Your task to perform on an android device: What's on my calendar tomorrow? Image 0: 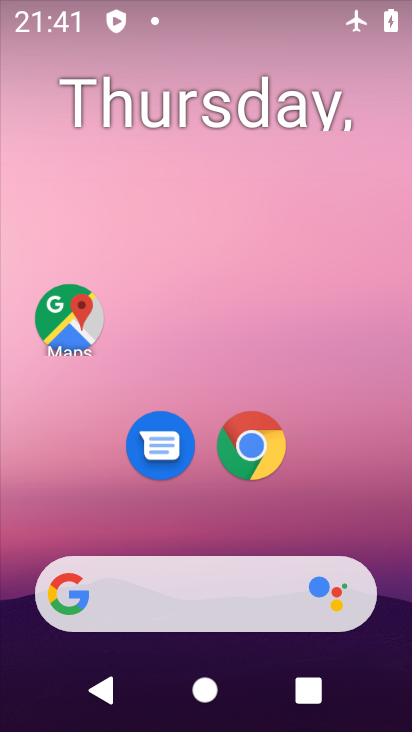
Step 0: press home button
Your task to perform on an android device: What's on my calendar tomorrow? Image 1: 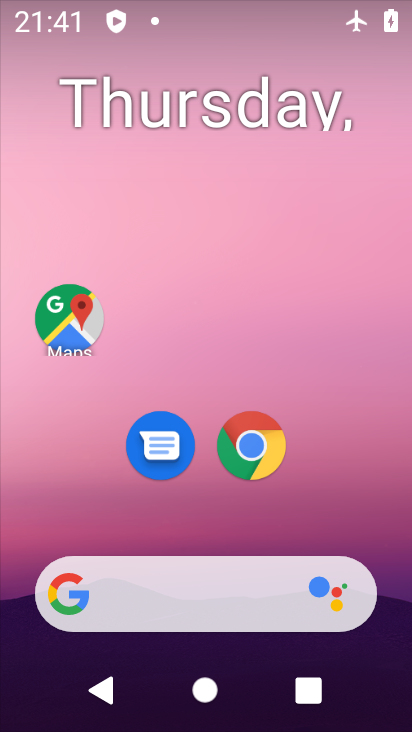
Step 1: drag from (33, 613) to (232, 193)
Your task to perform on an android device: What's on my calendar tomorrow? Image 2: 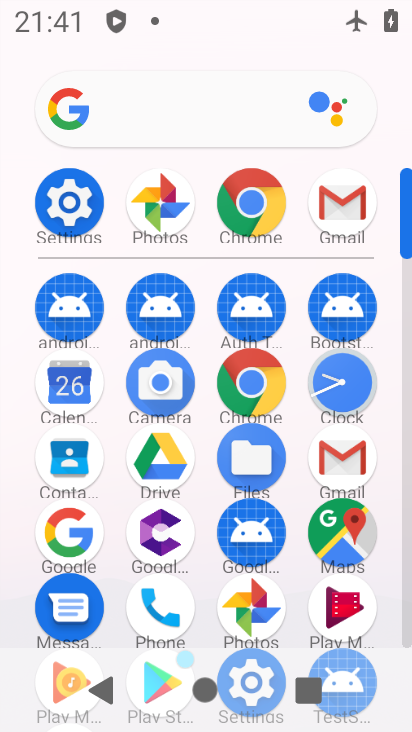
Step 2: click (64, 387)
Your task to perform on an android device: What's on my calendar tomorrow? Image 3: 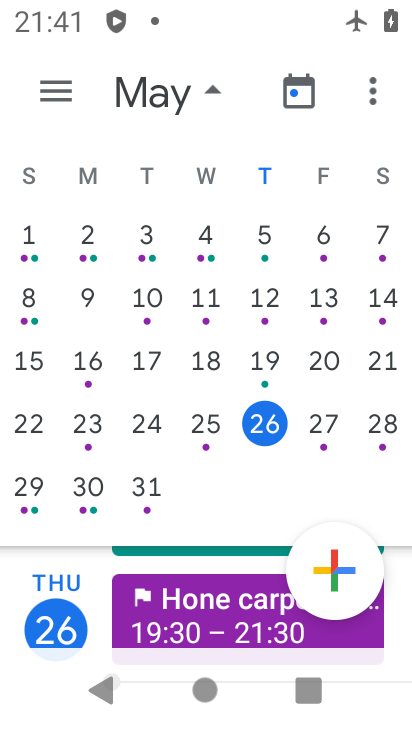
Step 3: click (328, 424)
Your task to perform on an android device: What's on my calendar tomorrow? Image 4: 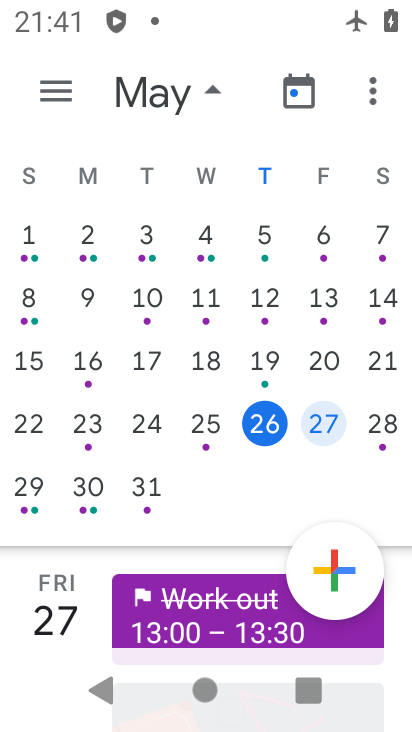
Step 4: task complete